Your task to perform on an android device: Play the new Demi Lovato video on YouTube Image 0: 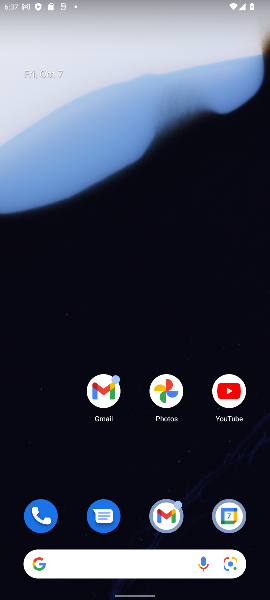
Step 0: drag from (128, 540) to (119, 264)
Your task to perform on an android device: Play the new Demi Lovato video on YouTube Image 1: 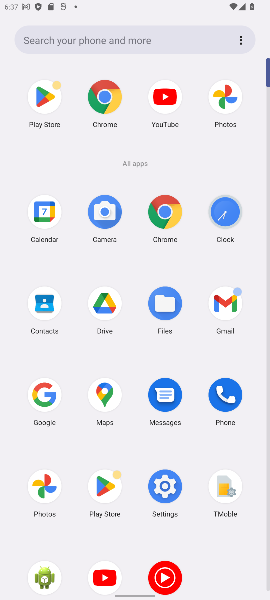
Step 1: click (108, 589)
Your task to perform on an android device: Play the new Demi Lovato video on YouTube Image 2: 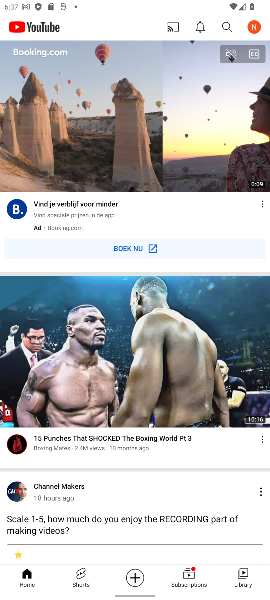
Step 2: task complete